Your task to perform on an android device: turn off priority inbox in the gmail app Image 0: 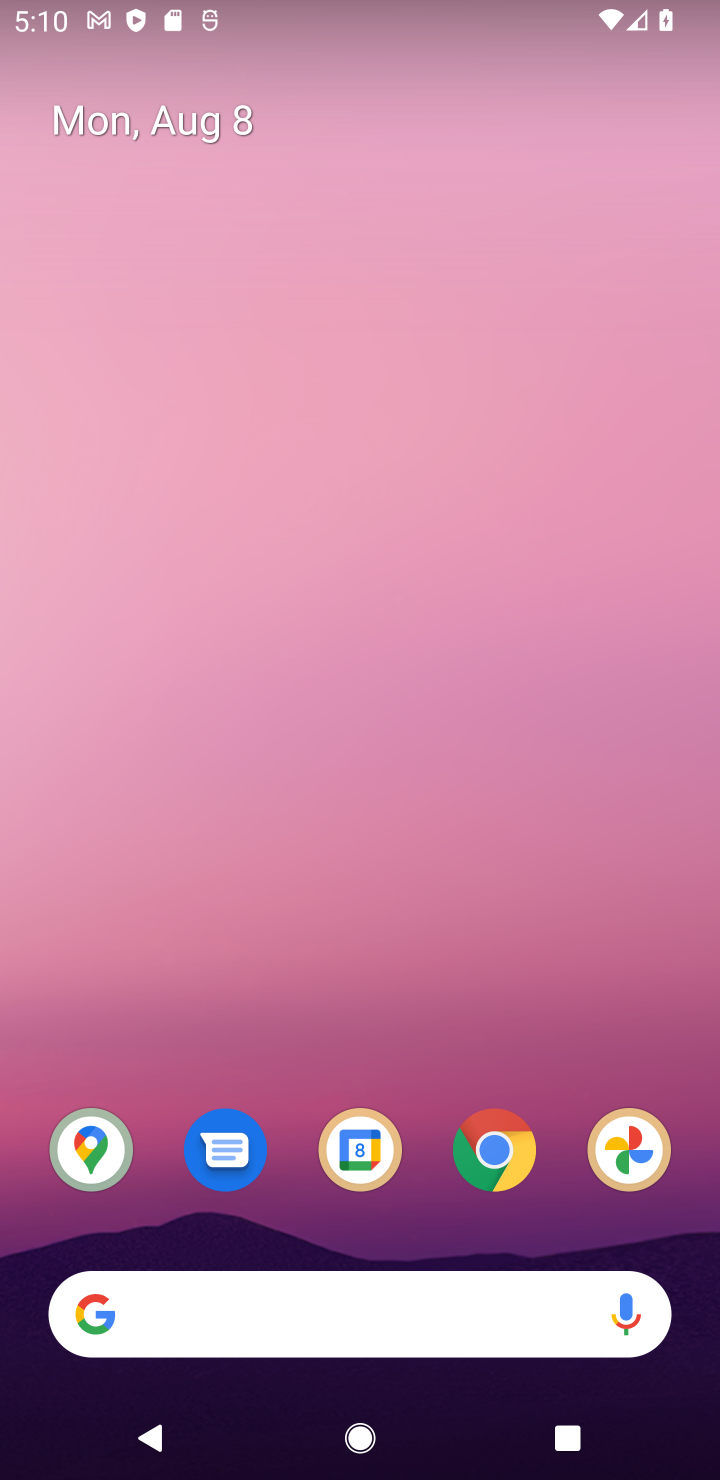
Step 0: drag from (467, 1218) to (446, 240)
Your task to perform on an android device: turn off priority inbox in the gmail app Image 1: 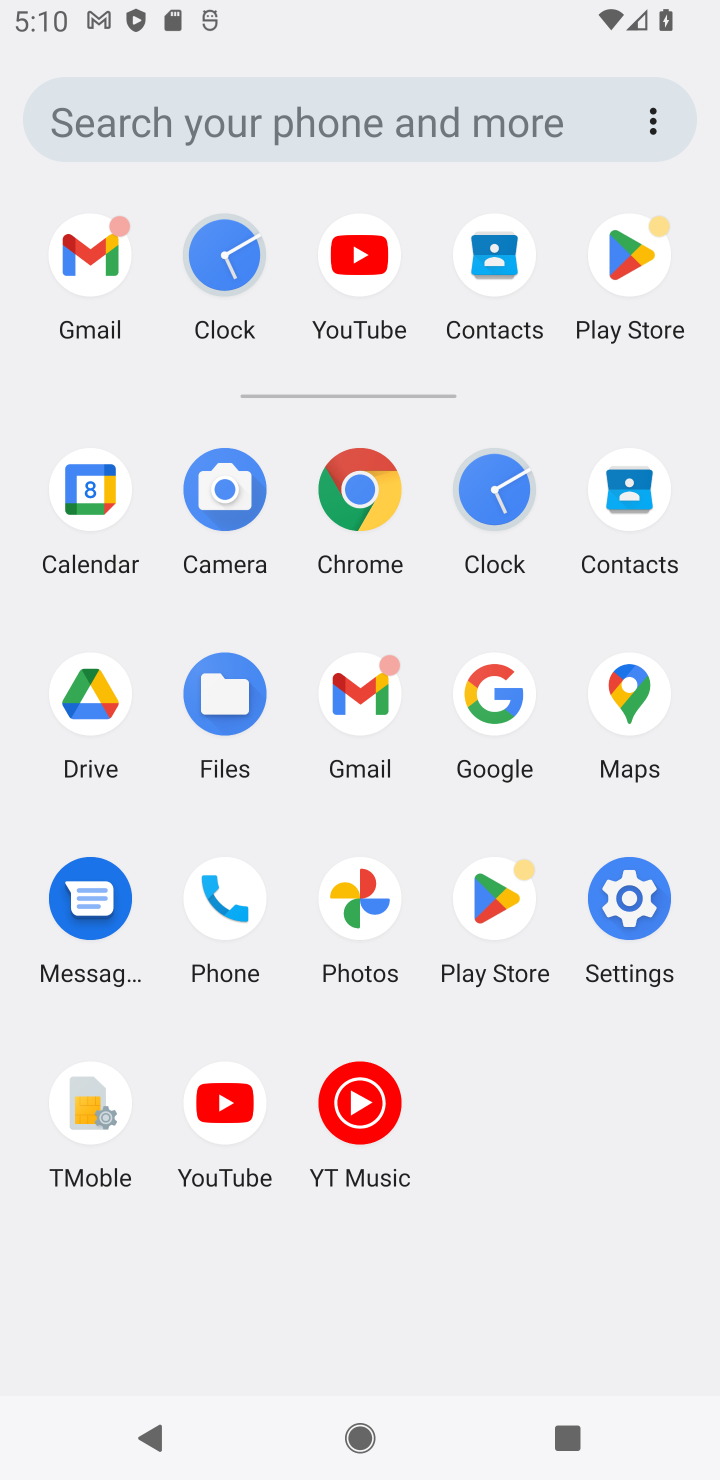
Step 1: click (103, 283)
Your task to perform on an android device: turn off priority inbox in the gmail app Image 2: 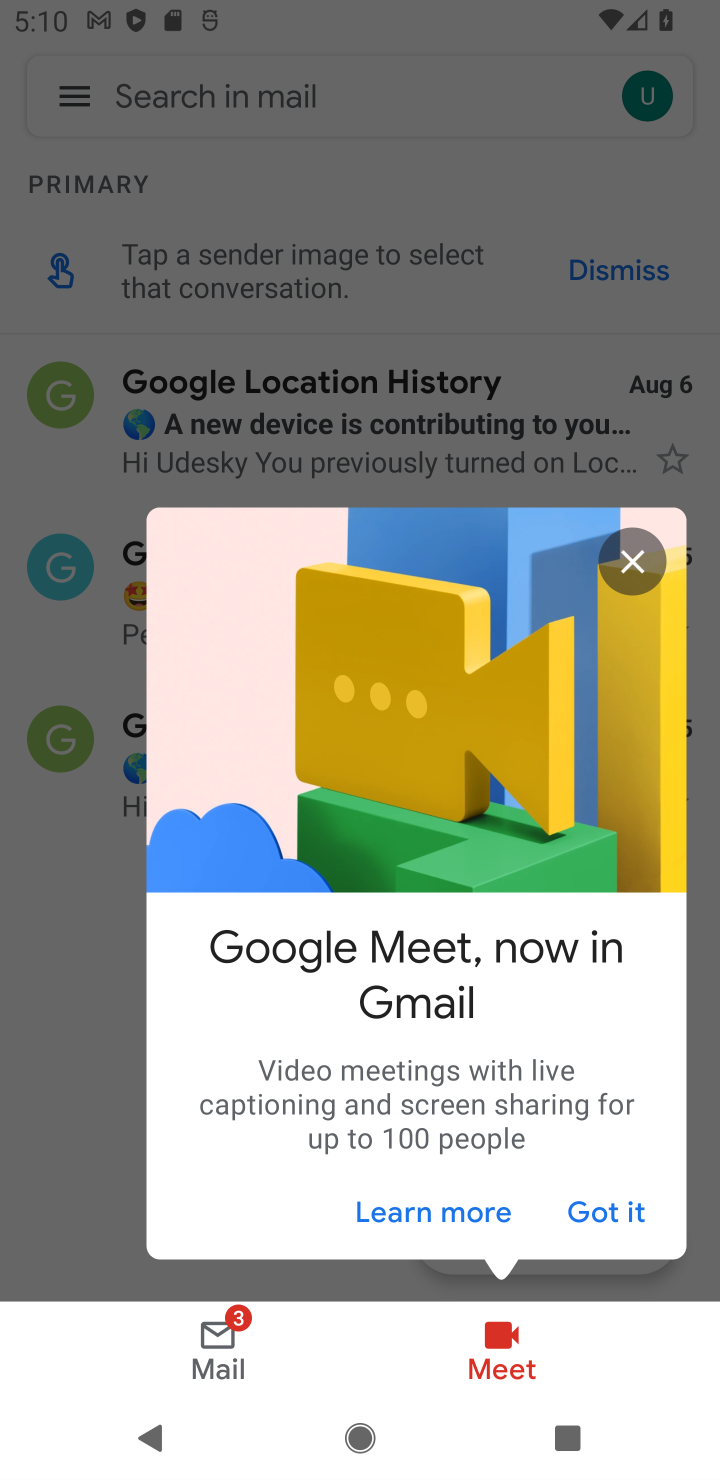
Step 2: task complete